Your task to perform on an android device: Go to calendar. Show me events next week Image 0: 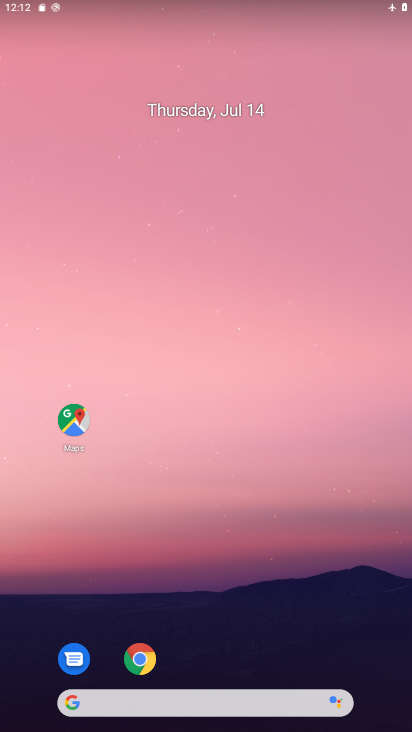
Step 0: drag from (302, 585) to (257, 78)
Your task to perform on an android device: Go to calendar. Show me events next week Image 1: 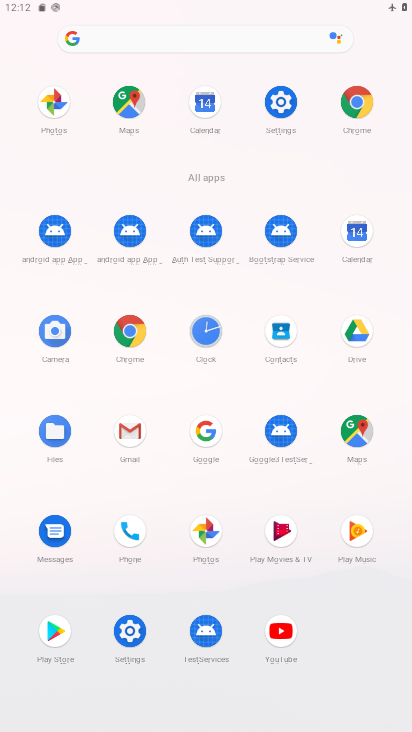
Step 1: click (362, 234)
Your task to perform on an android device: Go to calendar. Show me events next week Image 2: 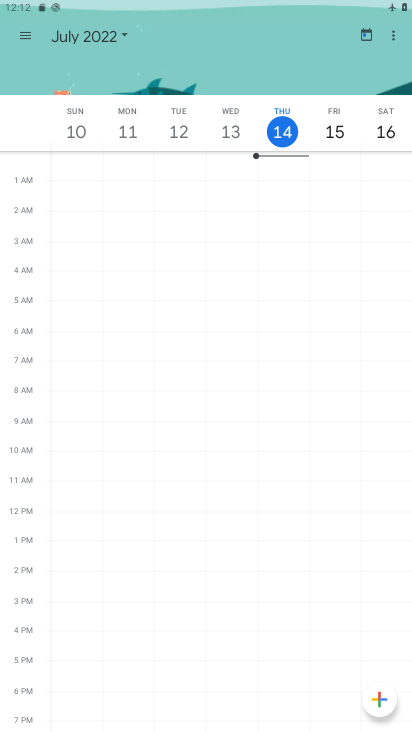
Step 2: task complete